Your task to perform on an android device: toggle notification dots Image 0: 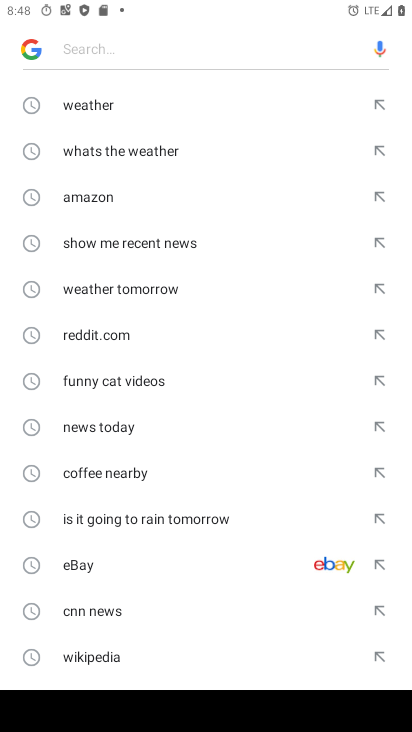
Step 0: press home button
Your task to perform on an android device: toggle notification dots Image 1: 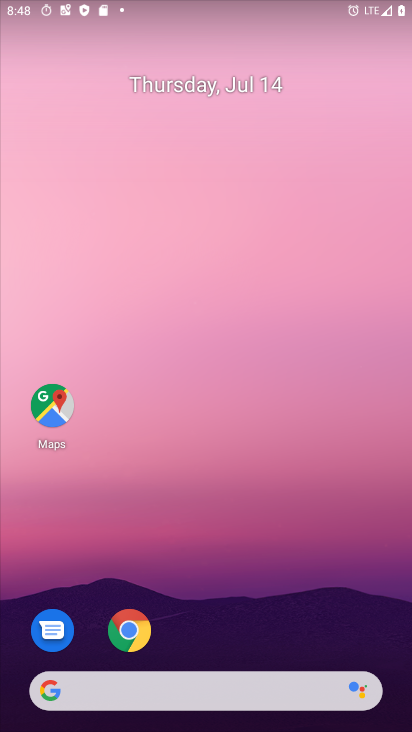
Step 1: drag from (245, 719) to (253, 299)
Your task to perform on an android device: toggle notification dots Image 2: 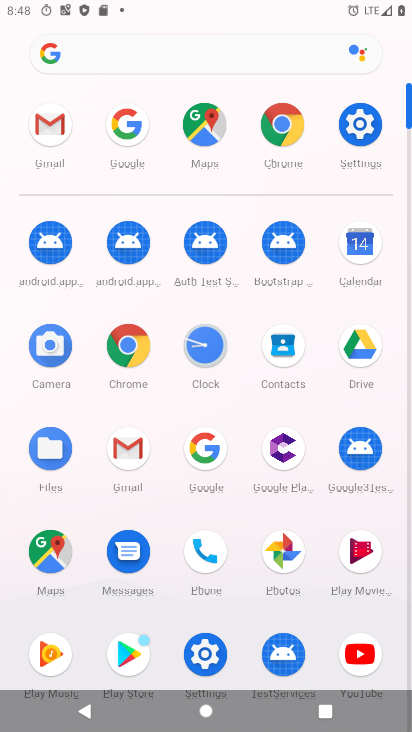
Step 2: click (366, 121)
Your task to perform on an android device: toggle notification dots Image 3: 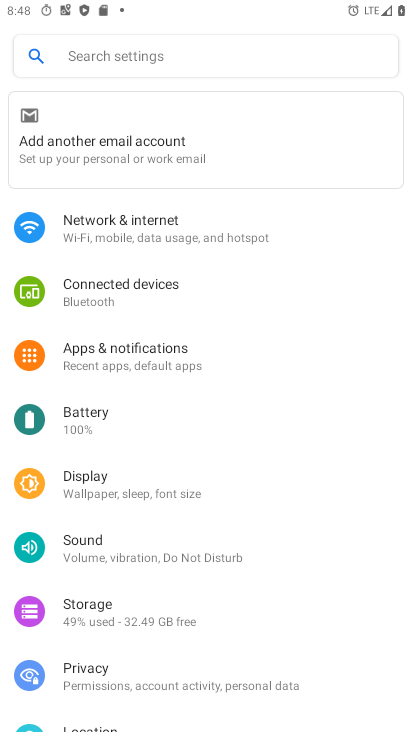
Step 3: click (125, 366)
Your task to perform on an android device: toggle notification dots Image 4: 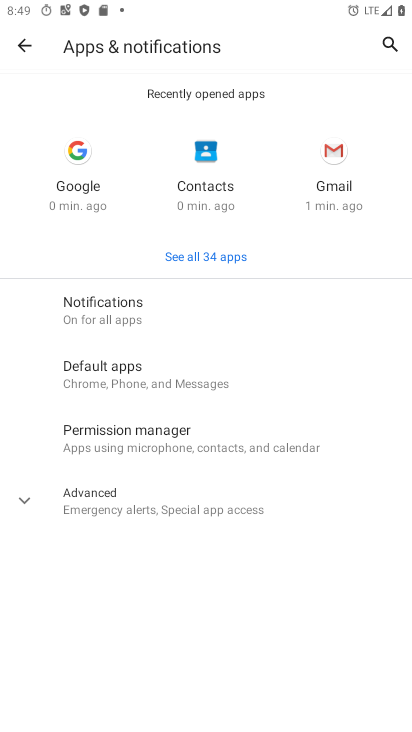
Step 4: click (110, 311)
Your task to perform on an android device: toggle notification dots Image 5: 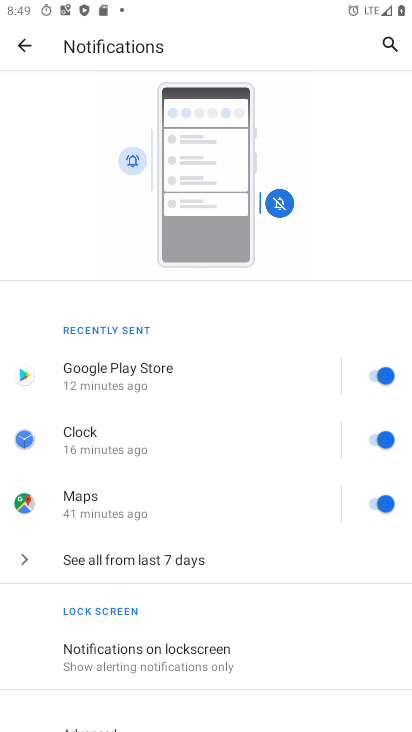
Step 5: drag from (150, 673) to (157, 490)
Your task to perform on an android device: toggle notification dots Image 6: 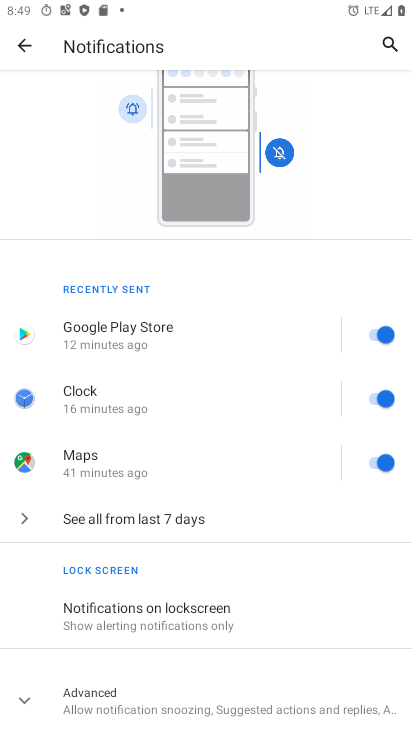
Step 6: click (156, 710)
Your task to perform on an android device: toggle notification dots Image 7: 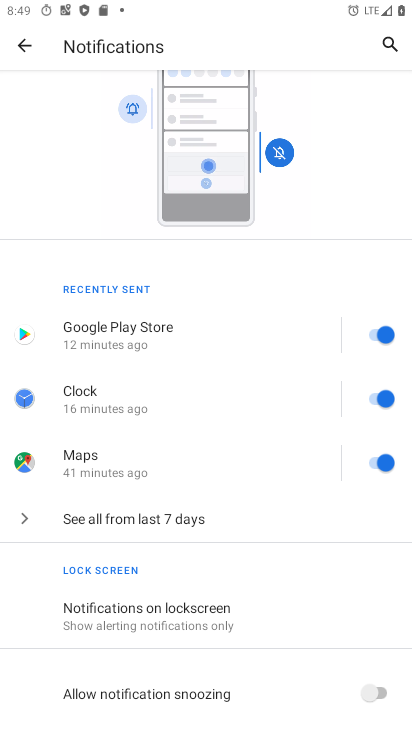
Step 7: drag from (307, 670) to (281, 608)
Your task to perform on an android device: toggle notification dots Image 8: 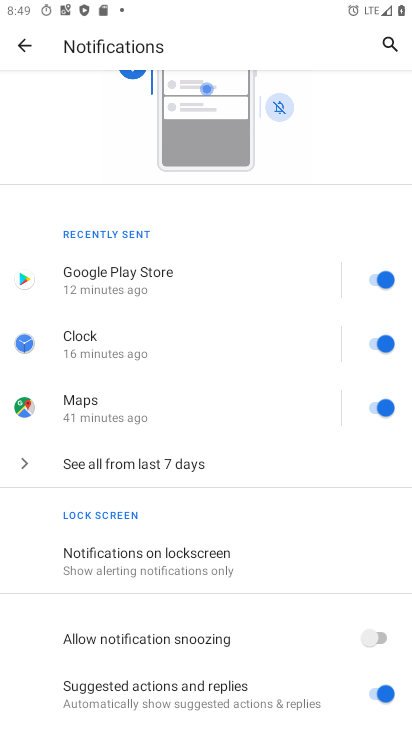
Step 8: drag from (254, 664) to (256, 350)
Your task to perform on an android device: toggle notification dots Image 9: 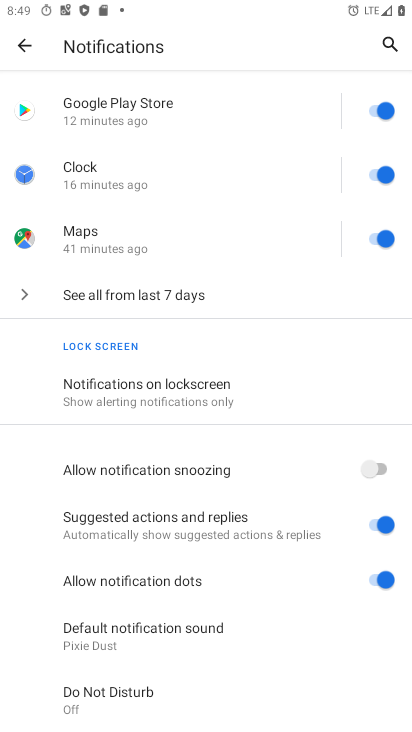
Step 9: click (372, 576)
Your task to perform on an android device: toggle notification dots Image 10: 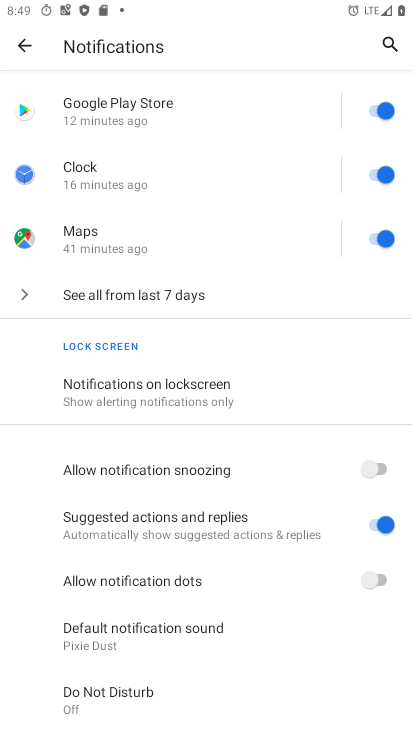
Step 10: task complete